Your task to perform on an android device: View the shopping cart on costco.com. Search for macbook pro 15 inch on costco.com, select the first entry, and add it to the cart. Image 0: 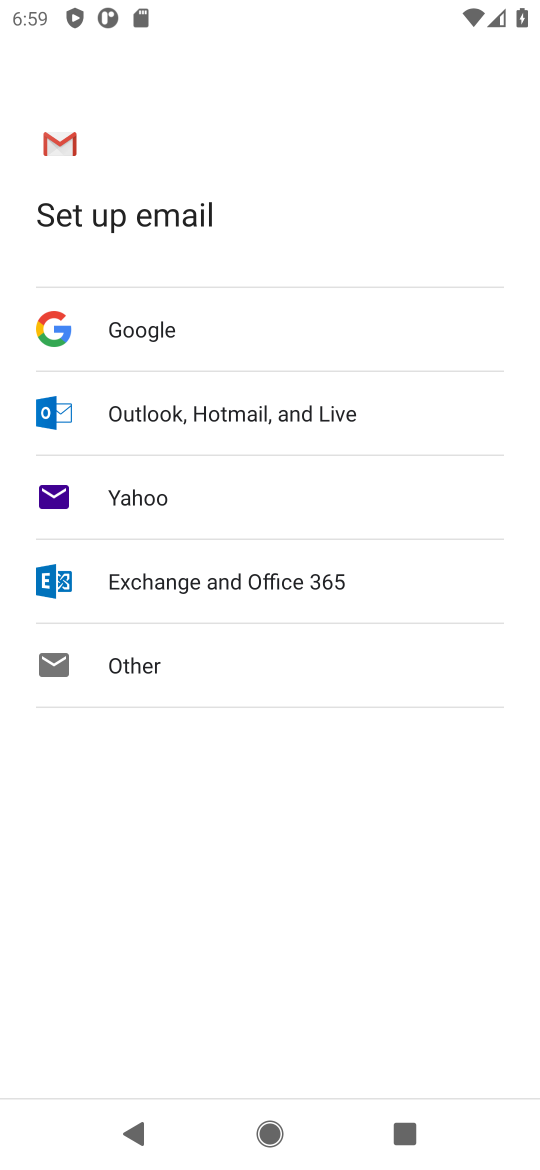
Step 0: press home button
Your task to perform on an android device: View the shopping cart on costco.com. Search for macbook pro 15 inch on costco.com, select the first entry, and add it to the cart. Image 1: 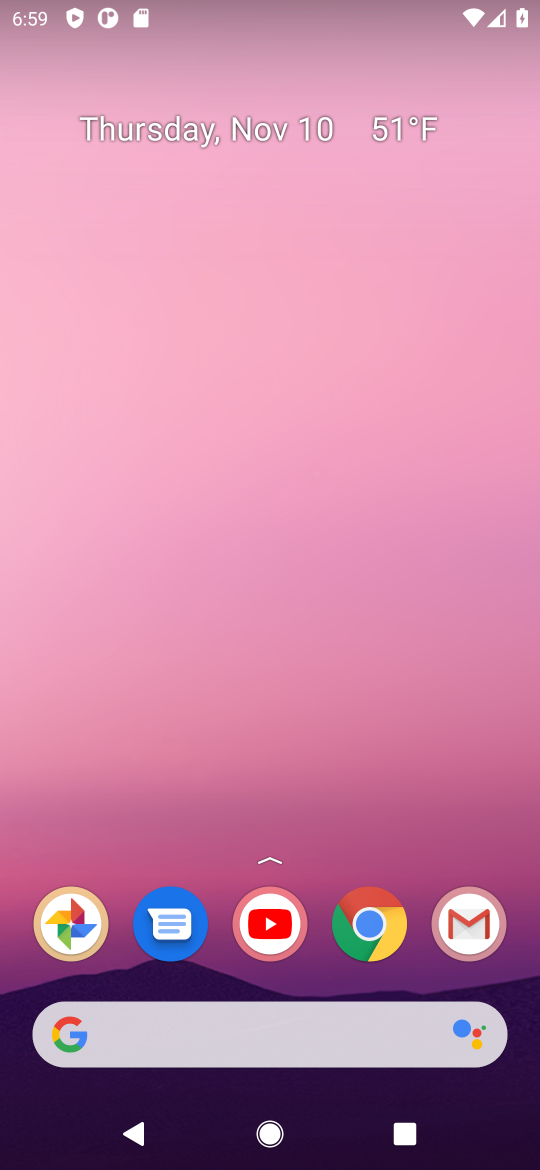
Step 1: click (367, 926)
Your task to perform on an android device: View the shopping cart on costco.com. Search for macbook pro 15 inch on costco.com, select the first entry, and add it to the cart. Image 2: 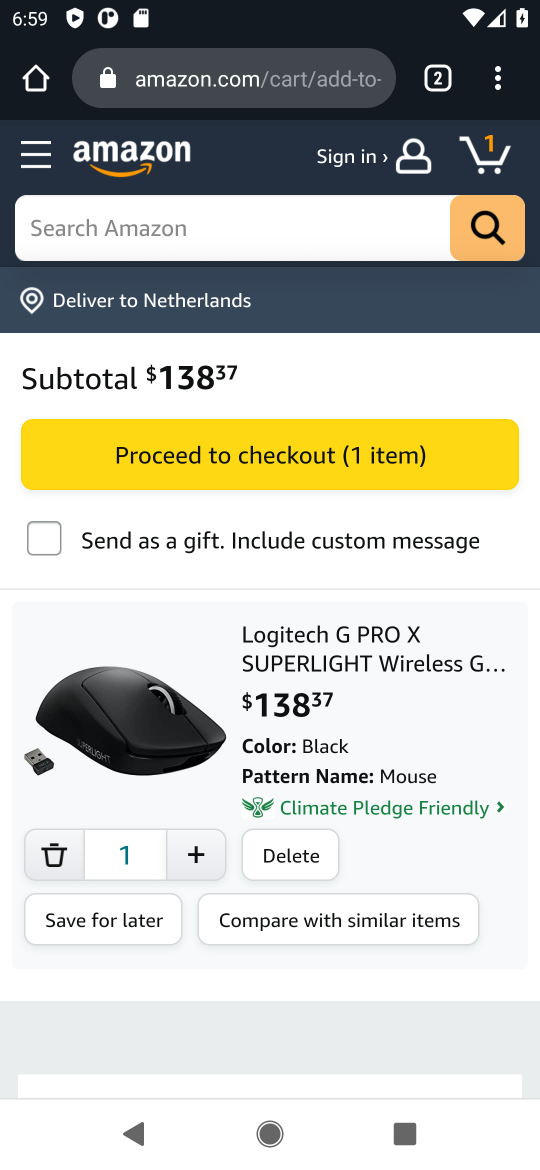
Step 2: click (235, 98)
Your task to perform on an android device: View the shopping cart on costco.com. Search for macbook pro 15 inch on costco.com, select the first entry, and add it to the cart. Image 3: 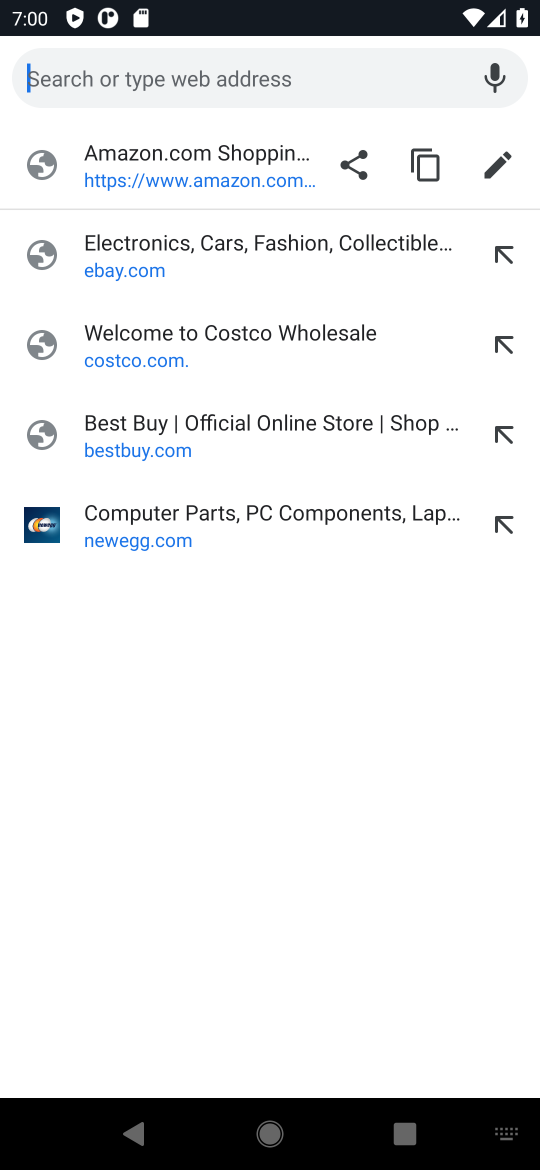
Step 3: click (96, 360)
Your task to perform on an android device: View the shopping cart on costco.com. Search for macbook pro 15 inch on costco.com, select the first entry, and add it to the cart. Image 4: 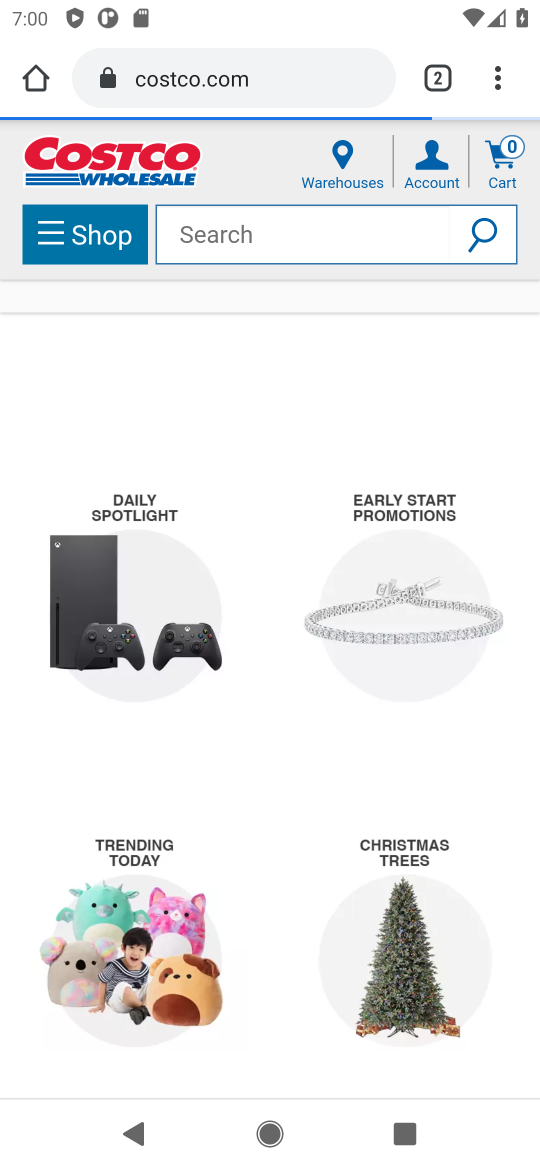
Step 4: click (490, 155)
Your task to perform on an android device: View the shopping cart on costco.com. Search for macbook pro 15 inch on costco.com, select the first entry, and add it to the cart. Image 5: 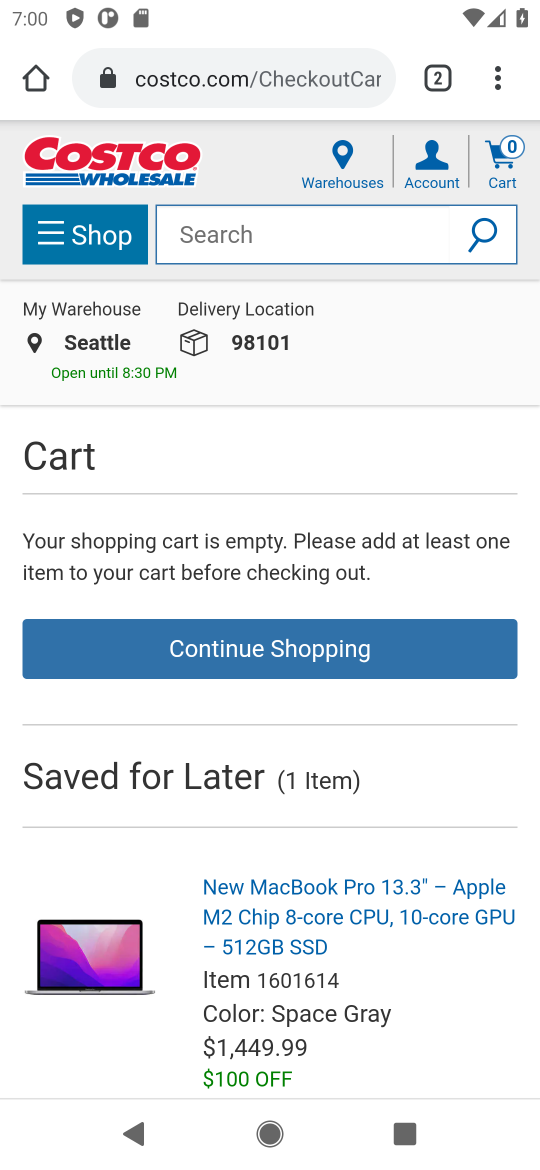
Step 5: click (267, 233)
Your task to perform on an android device: View the shopping cart on costco.com. Search for macbook pro 15 inch on costco.com, select the first entry, and add it to the cart. Image 6: 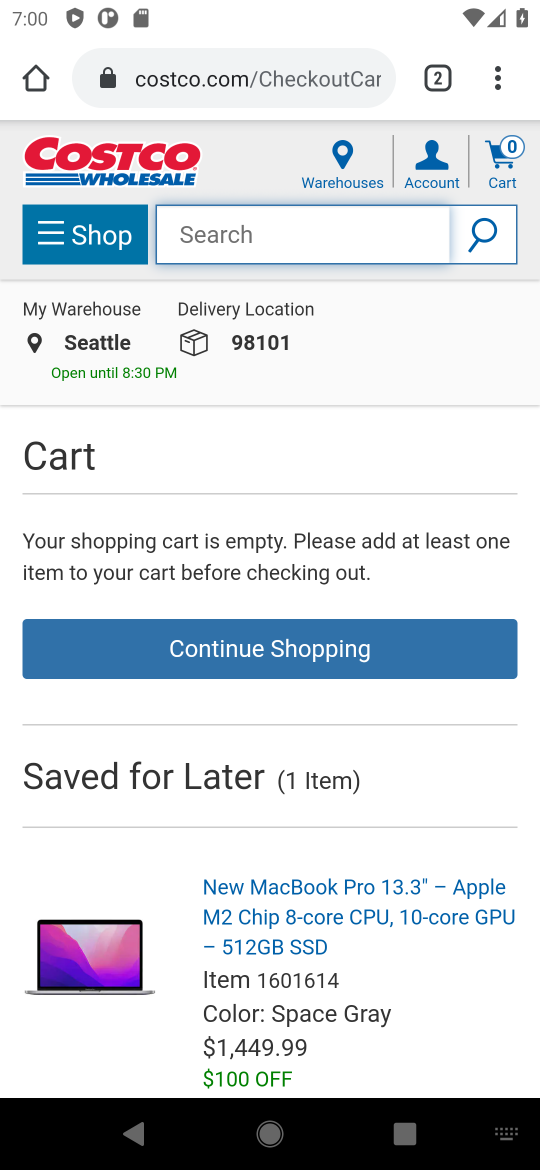
Step 6: type "macbook pro 15 inch"
Your task to perform on an android device: View the shopping cart on costco.com. Search for macbook pro 15 inch on costco.com, select the first entry, and add it to the cart. Image 7: 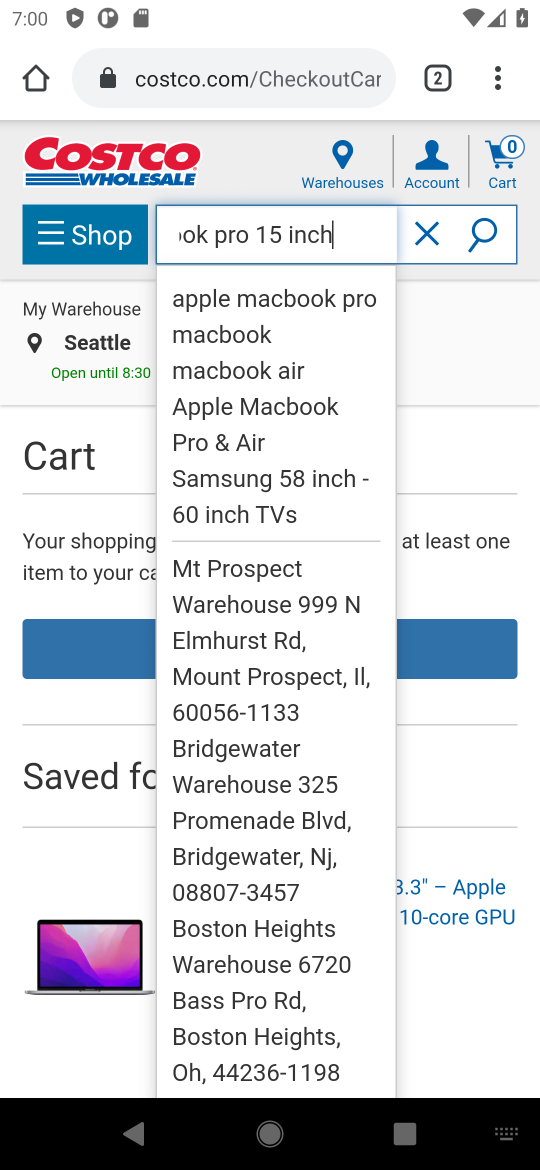
Step 7: click (478, 239)
Your task to perform on an android device: View the shopping cart on costco.com. Search for macbook pro 15 inch on costco.com, select the first entry, and add it to the cart. Image 8: 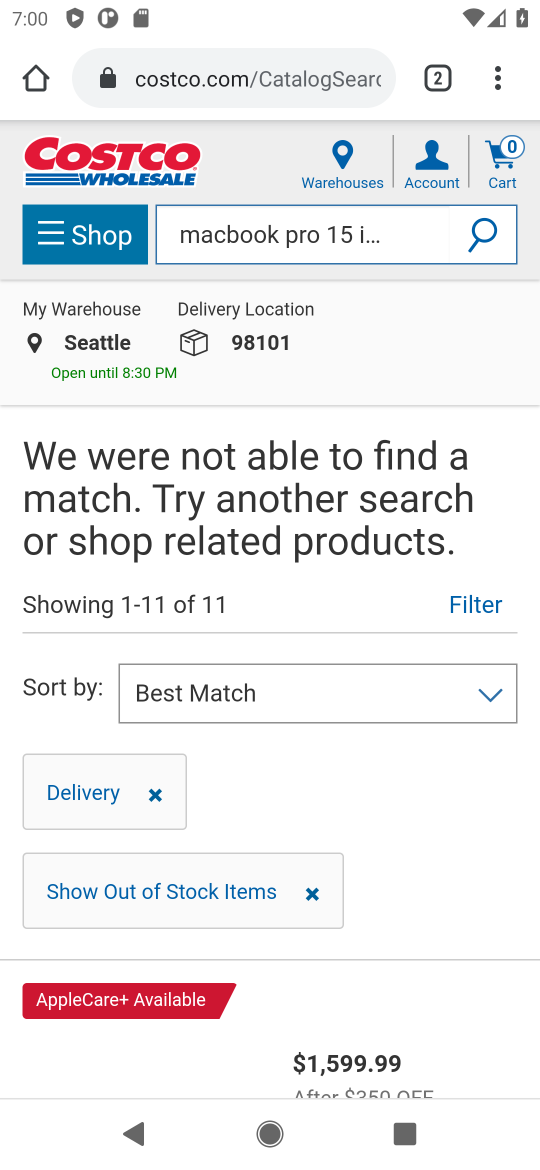
Step 8: task complete